Your task to perform on an android device: open chrome privacy settings Image 0: 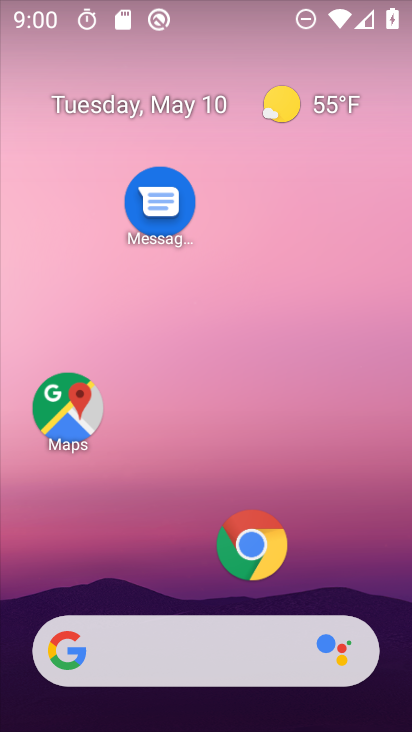
Step 0: click (252, 545)
Your task to perform on an android device: open chrome privacy settings Image 1: 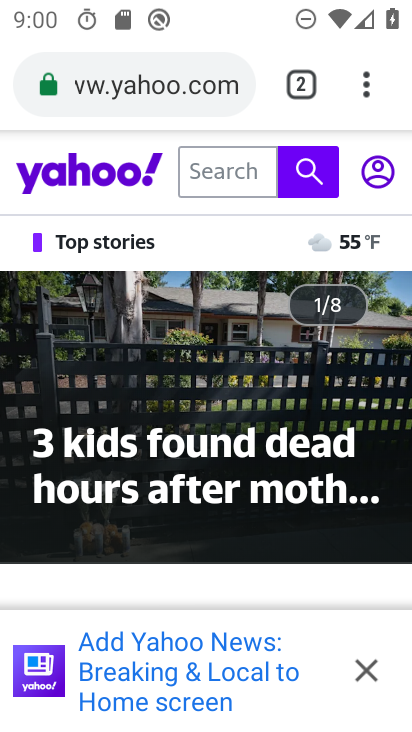
Step 1: drag from (355, 83) to (131, 604)
Your task to perform on an android device: open chrome privacy settings Image 2: 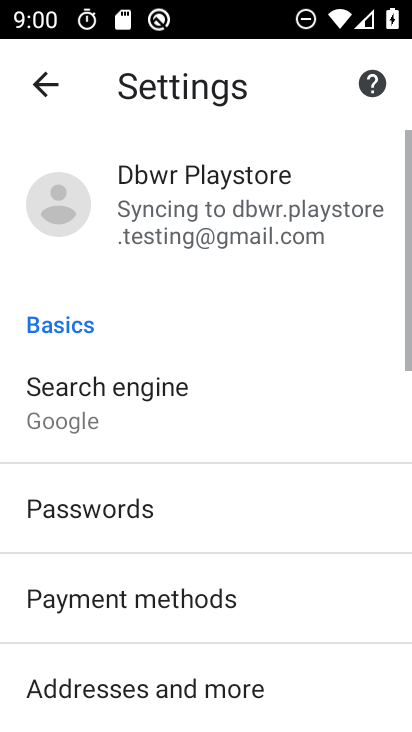
Step 2: drag from (197, 601) to (209, 223)
Your task to perform on an android device: open chrome privacy settings Image 3: 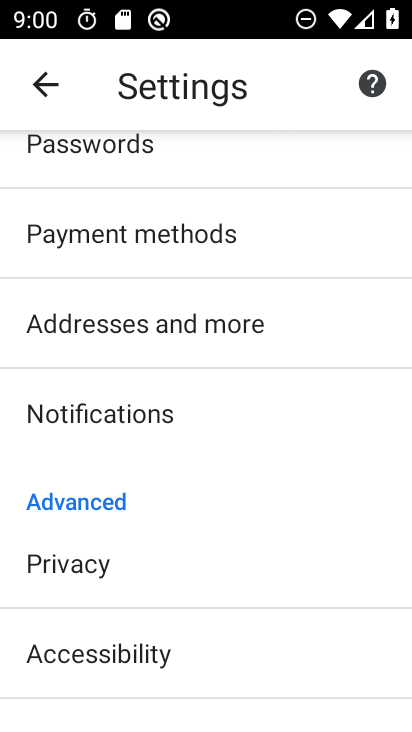
Step 3: click (117, 561)
Your task to perform on an android device: open chrome privacy settings Image 4: 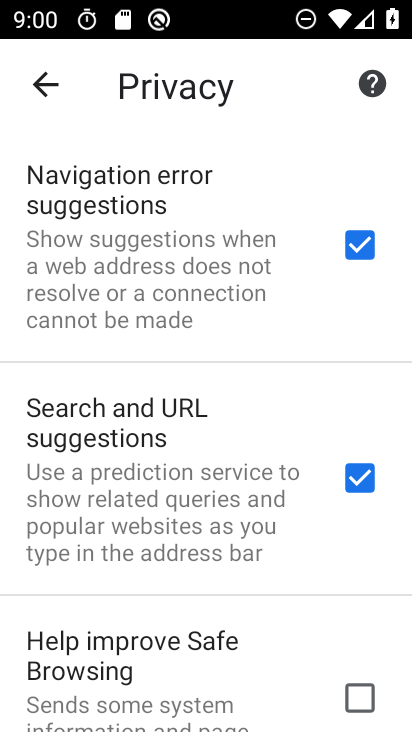
Step 4: task complete